Your task to perform on an android device: Open Google Maps and go to "Timeline" Image 0: 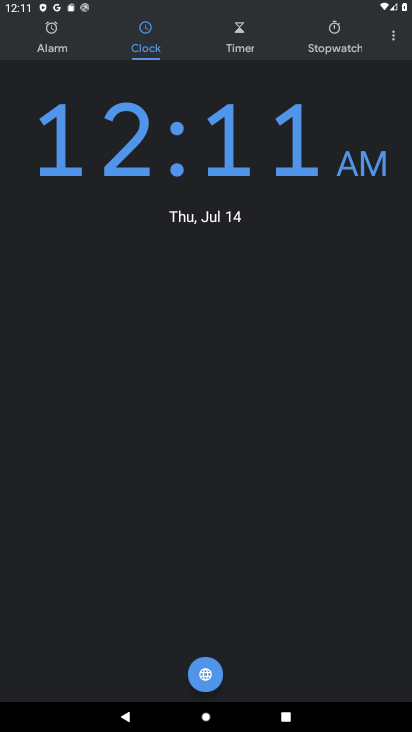
Step 0: click (200, 632)
Your task to perform on an android device: Open Google Maps and go to "Timeline" Image 1: 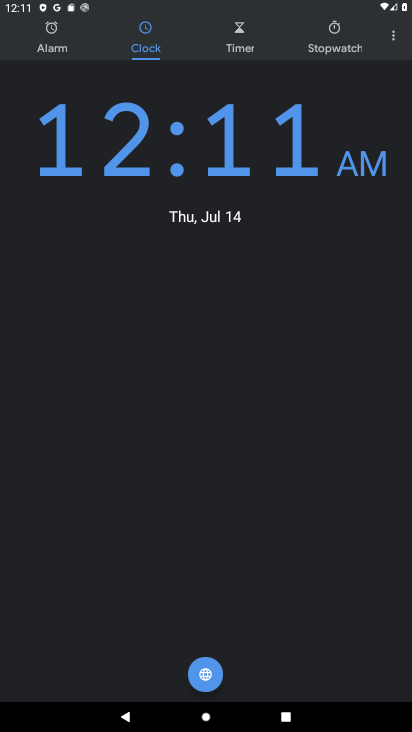
Step 1: press home button
Your task to perform on an android device: Open Google Maps and go to "Timeline" Image 2: 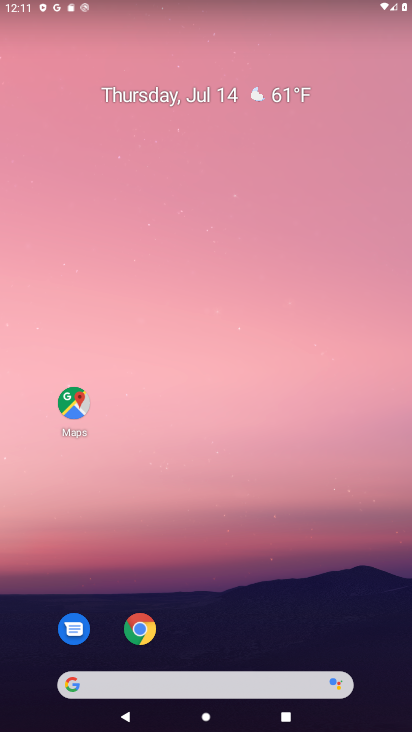
Step 2: click (75, 414)
Your task to perform on an android device: Open Google Maps and go to "Timeline" Image 3: 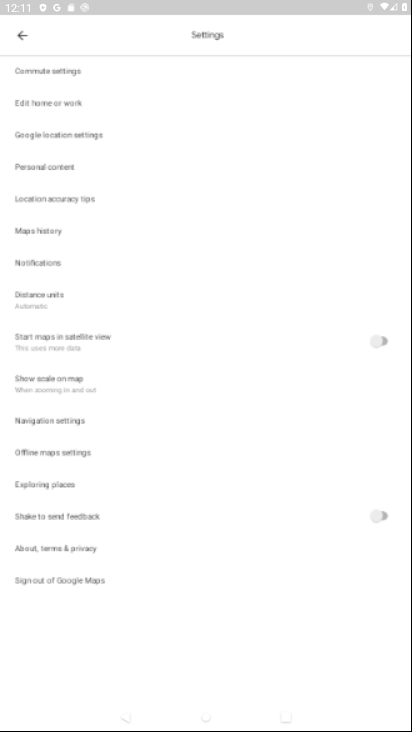
Step 3: click (23, 35)
Your task to perform on an android device: Open Google Maps and go to "Timeline" Image 4: 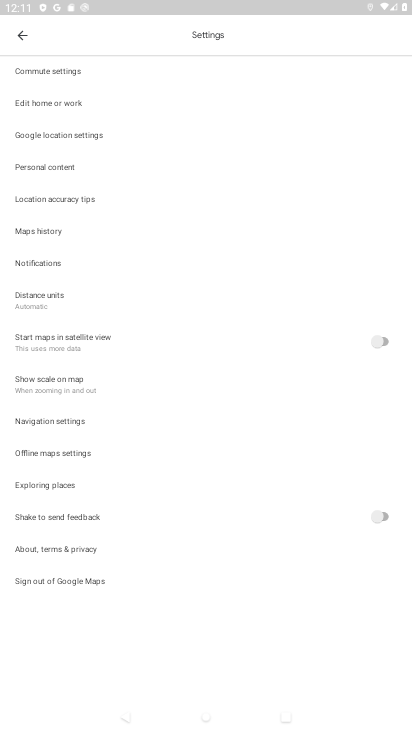
Step 4: click (23, 35)
Your task to perform on an android device: Open Google Maps and go to "Timeline" Image 5: 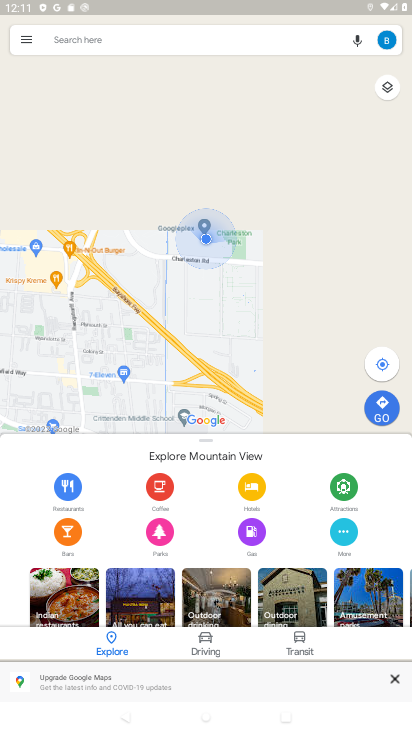
Step 5: click (23, 35)
Your task to perform on an android device: Open Google Maps and go to "Timeline" Image 6: 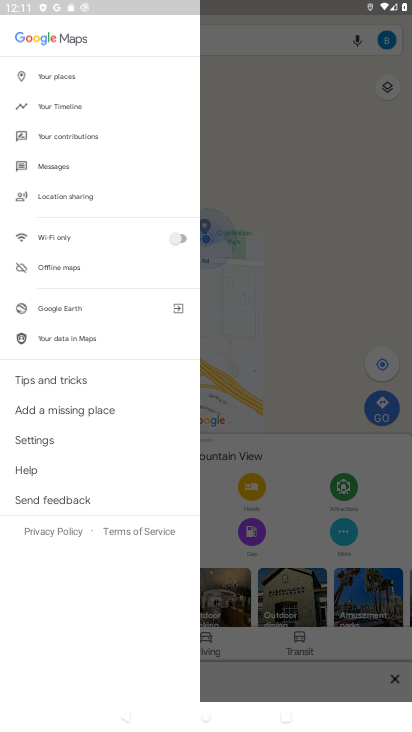
Step 6: click (96, 109)
Your task to perform on an android device: Open Google Maps and go to "Timeline" Image 7: 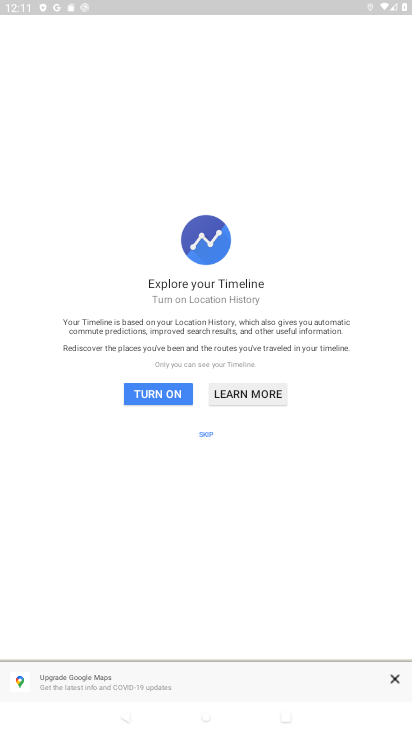
Step 7: click (148, 397)
Your task to perform on an android device: Open Google Maps and go to "Timeline" Image 8: 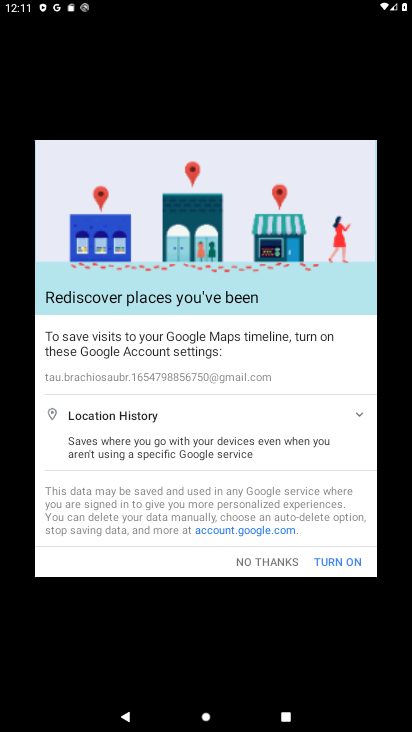
Step 8: click (330, 562)
Your task to perform on an android device: Open Google Maps and go to "Timeline" Image 9: 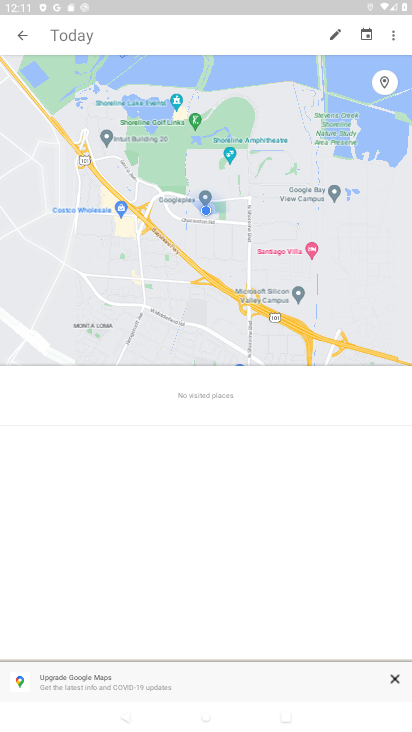
Step 9: task complete